Your task to perform on an android device: Open settings on Google Maps Image 0: 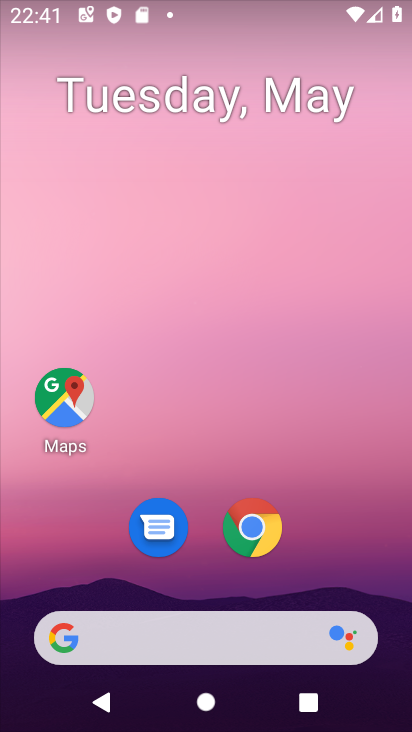
Step 0: drag from (192, 562) to (253, 115)
Your task to perform on an android device: Open settings on Google Maps Image 1: 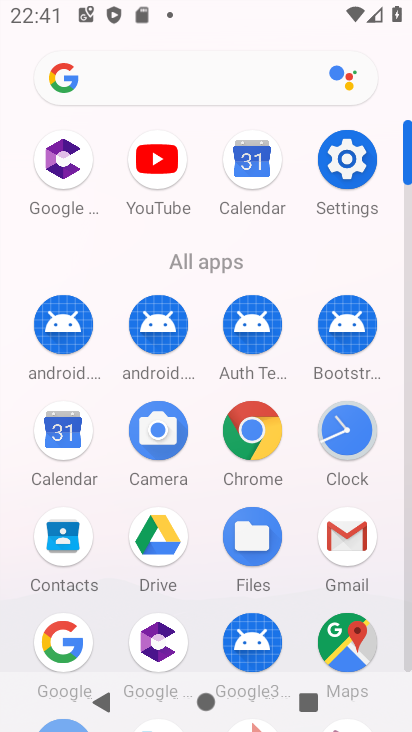
Step 1: click (335, 640)
Your task to perform on an android device: Open settings on Google Maps Image 2: 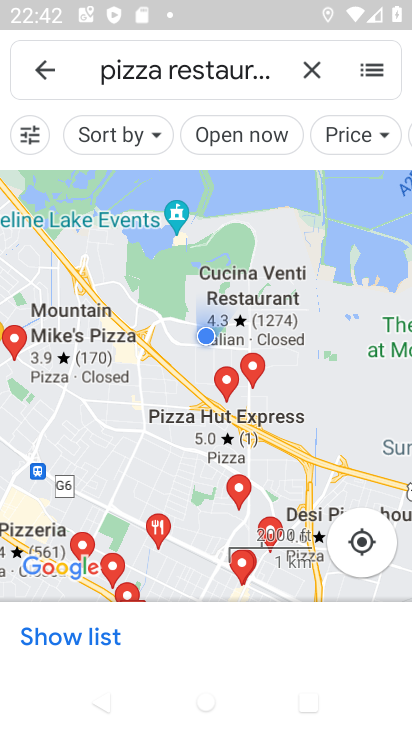
Step 2: click (322, 61)
Your task to perform on an android device: Open settings on Google Maps Image 3: 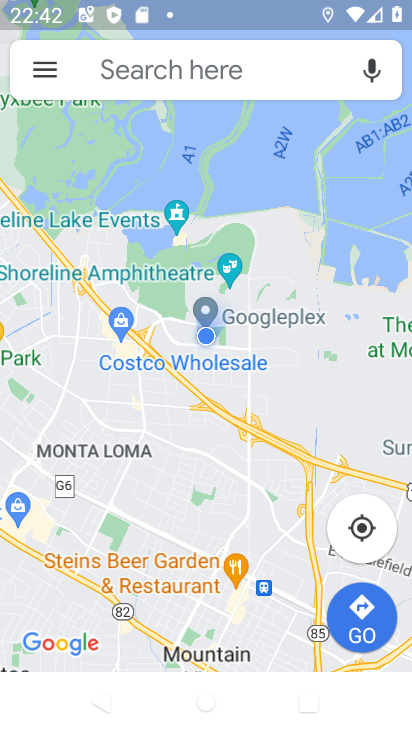
Step 3: drag from (240, 600) to (278, 197)
Your task to perform on an android device: Open settings on Google Maps Image 4: 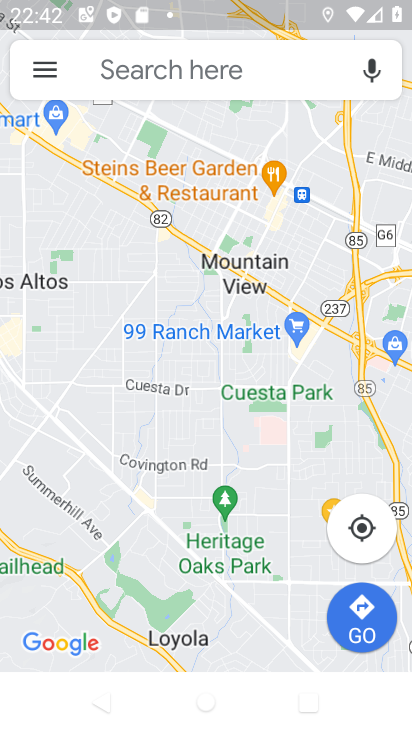
Step 4: click (38, 75)
Your task to perform on an android device: Open settings on Google Maps Image 5: 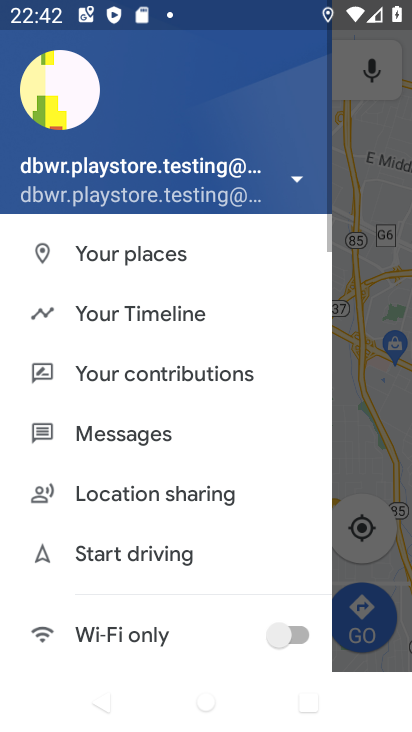
Step 5: drag from (137, 603) to (178, 46)
Your task to perform on an android device: Open settings on Google Maps Image 6: 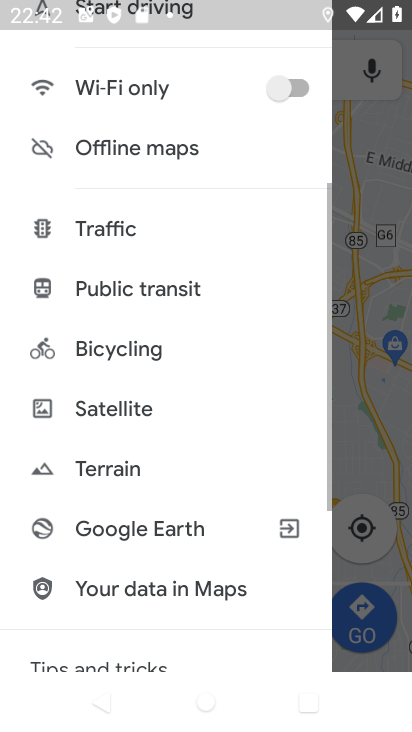
Step 6: drag from (149, 456) to (152, 37)
Your task to perform on an android device: Open settings on Google Maps Image 7: 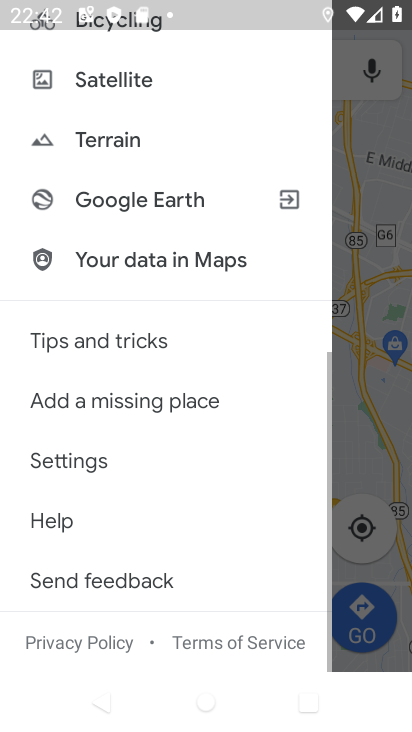
Step 7: click (87, 437)
Your task to perform on an android device: Open settings on Google Maps Image 8: 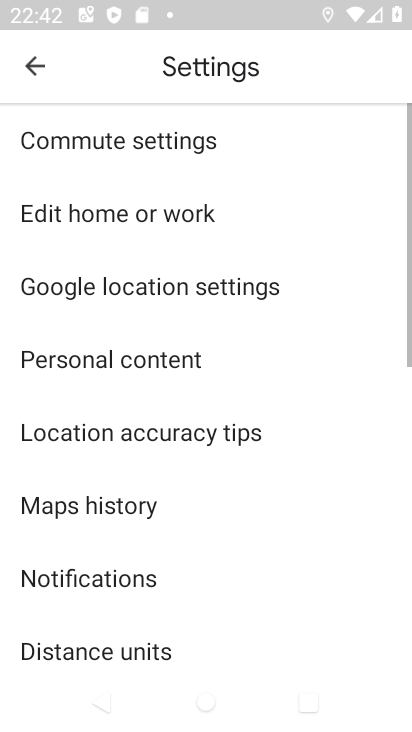
Step 8: drag from (203, 535) to (218, 96)
Your task to perform on an android device: Open settings on Google Maps Image 9: 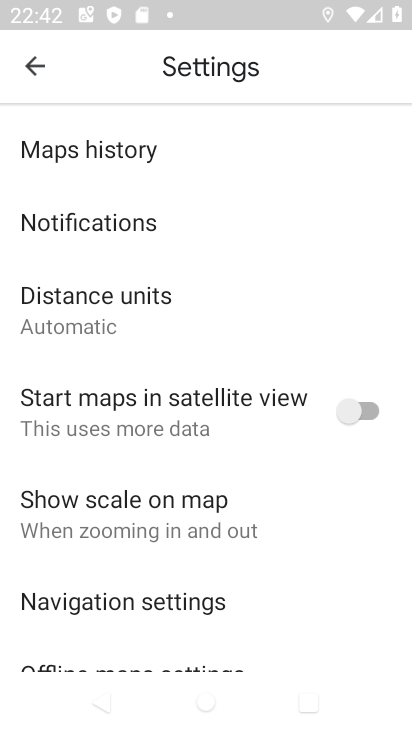
Step 9: drag from (221, 564) to (207, 279)
Your task to perform on an android device: Open settings on Google Maps Image 10: 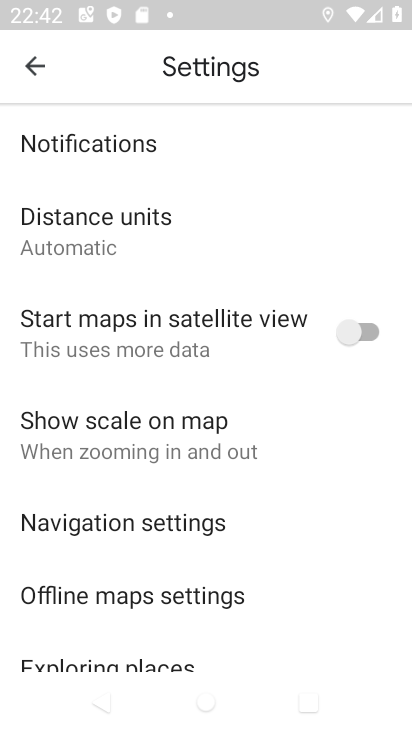
Step 10: drag from (185, 612) to (244, 147)
Your task to perform on an android device: Open settings on Google Maps Image 11: 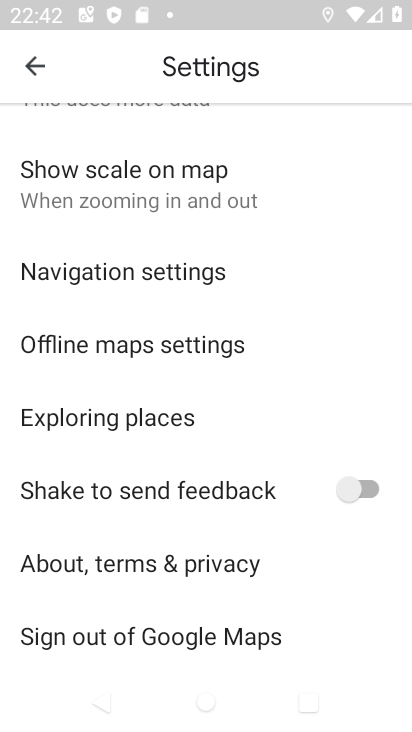
Step 11: drag from (181, 363) to (351, 710)
Your task to perform on an android device: Open settings on Google Maps Image 12: 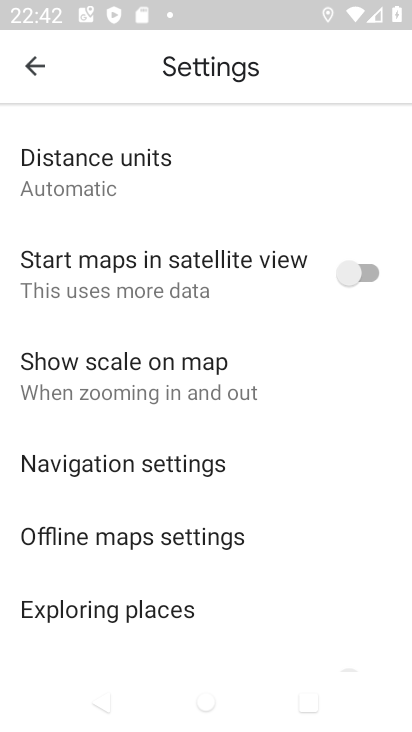
Step 12: drag from (193, 571) to (192, 225)
Your task to perform on an android device: Open settings on Google Maps Image 13: 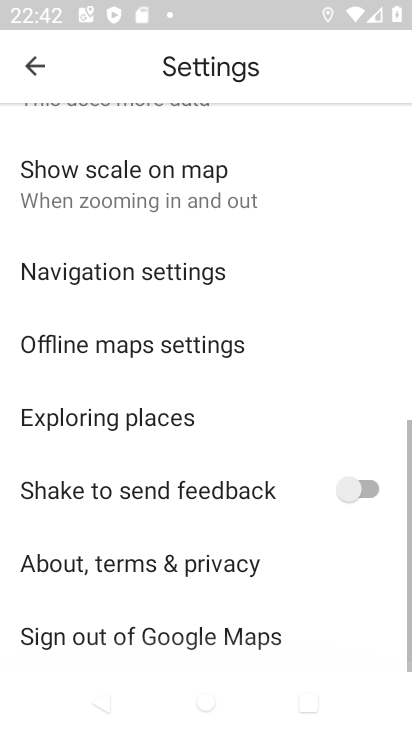
Step 13: drag from (195, 209) to (266, 728)
Your task to perform on an android device: Open settings on Google Maps Image 14: 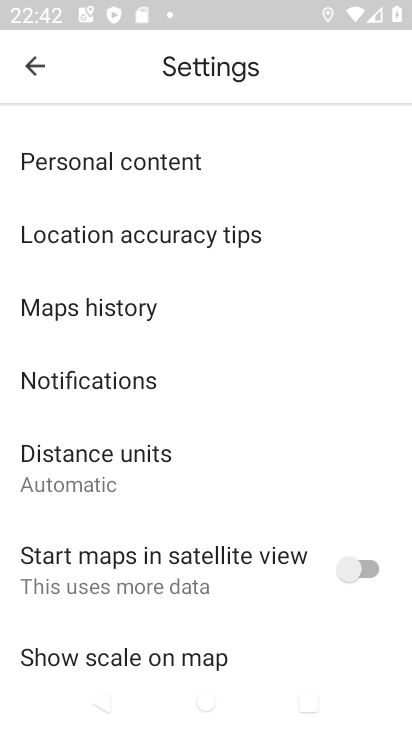
Step 14: click (40, 54)
Your task to perform on an android device: Open settings on Google Maps Image 15: 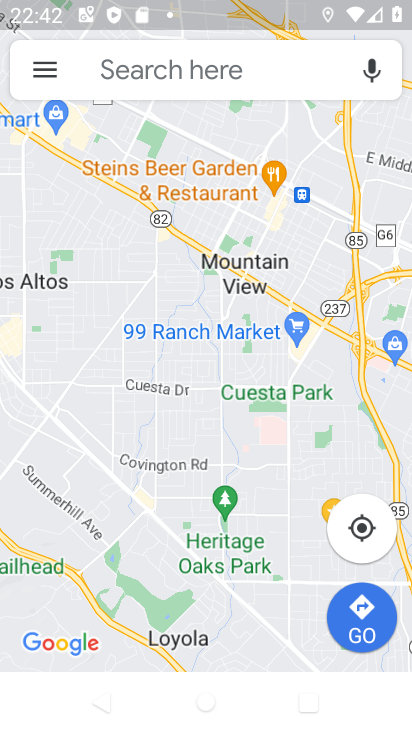
Step 15: click (45, 73)
Your task to perform on an android device: Open settings on Google Maps Image 16: 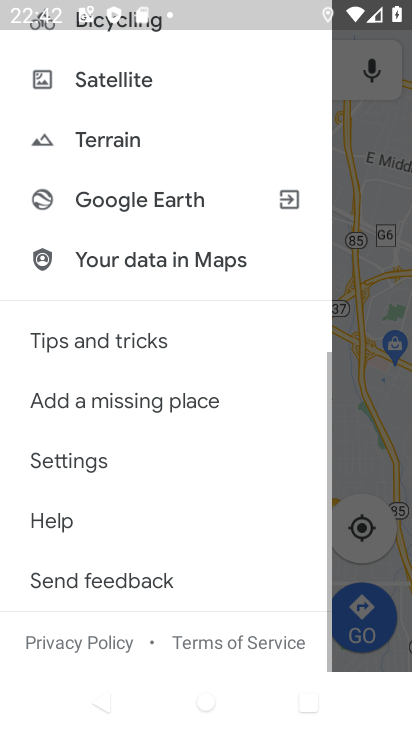
Step 16: drag from (99, 113) to (306, 666)
Your task to perform on an android device: Open settings on Google Maps Image 17: 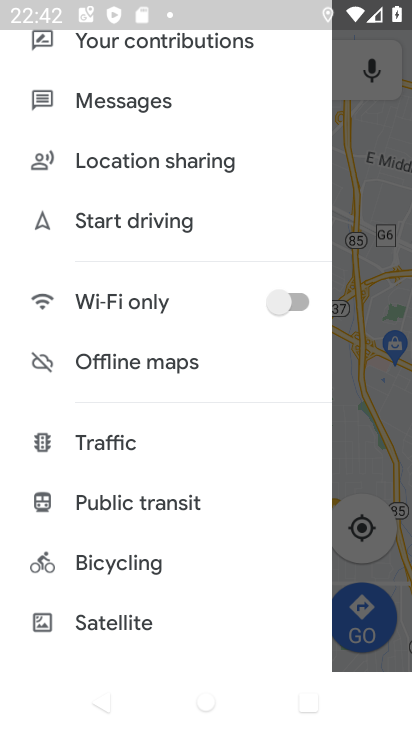
Step 17: click (341, 100)
Your task to perform on an android device: Open settings on Google Maps Image 18: 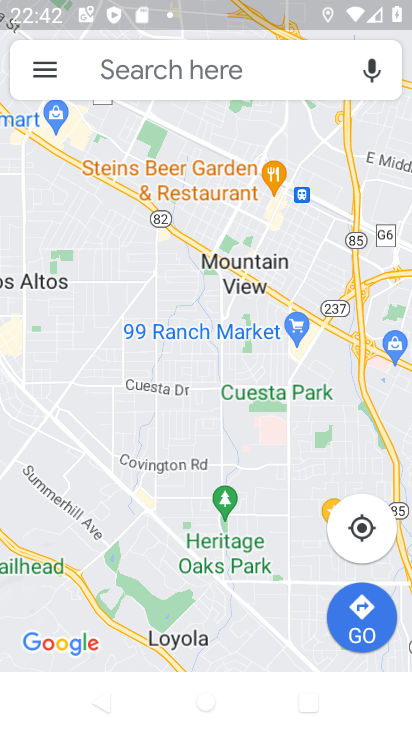
Step 18: click (179, 55)
Your task to perform on an android device: Open settings on Google Maps Image 19: 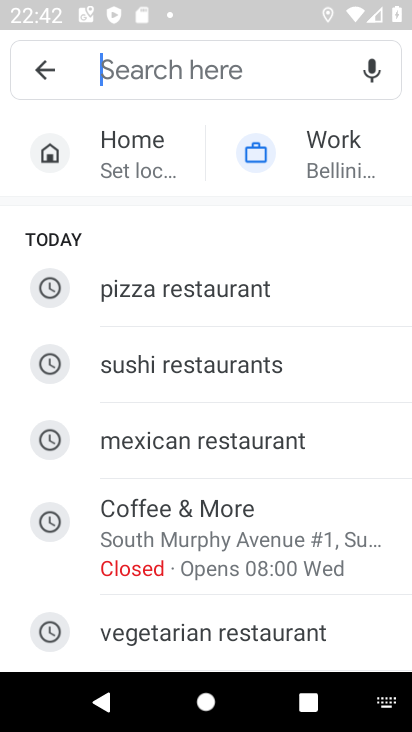
Step 19: click (53, 53)
Your task to perform on an android device: Open settings on Google Maps Image 20: 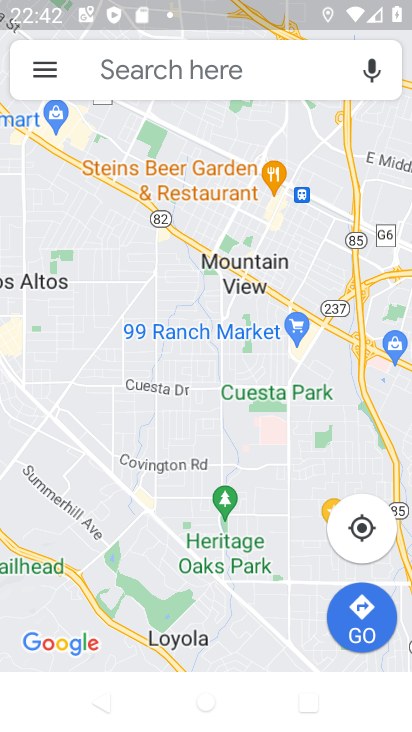
Step 20: click (53, 62)
Your task to perform on an android device: Open settings on Google Maps Image 21: 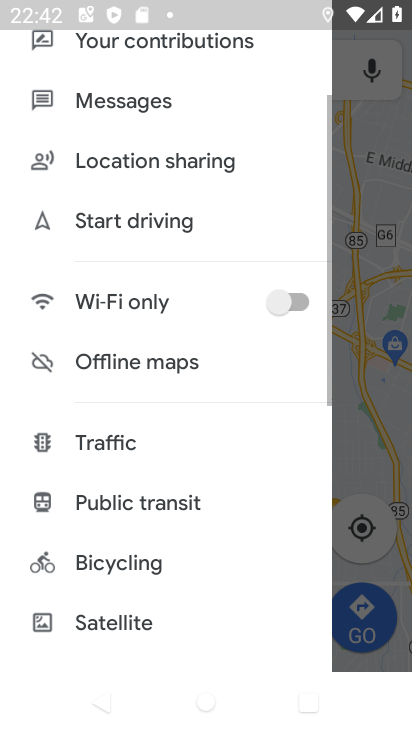
Step 21: drag from (130, 473) to (192, 107)
Your task to perform on an android device: Open settings on Google Maps Image 22: 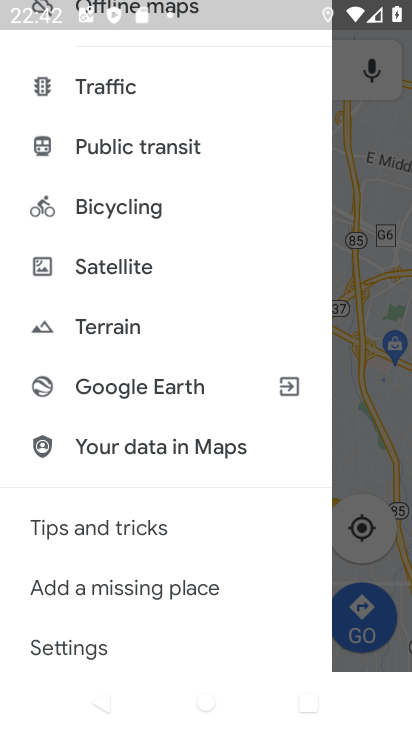
Step 22: click (95, 630)
Your task to perform on an android device: Open settings on Google Maps Image 23: 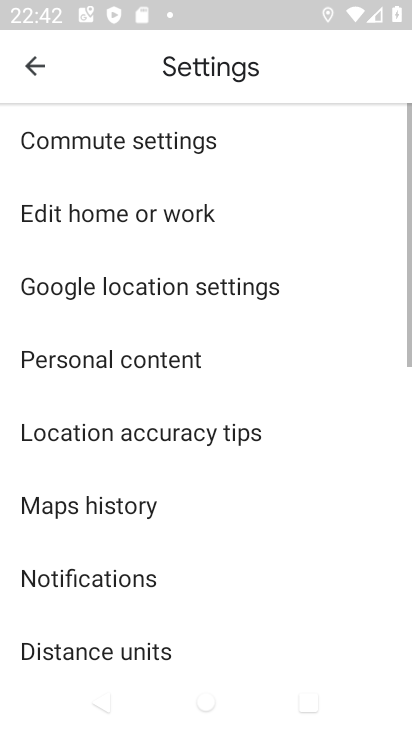
Step 23: task complete